Your task to perform on an android device: open chrome privacy settings Image 0: 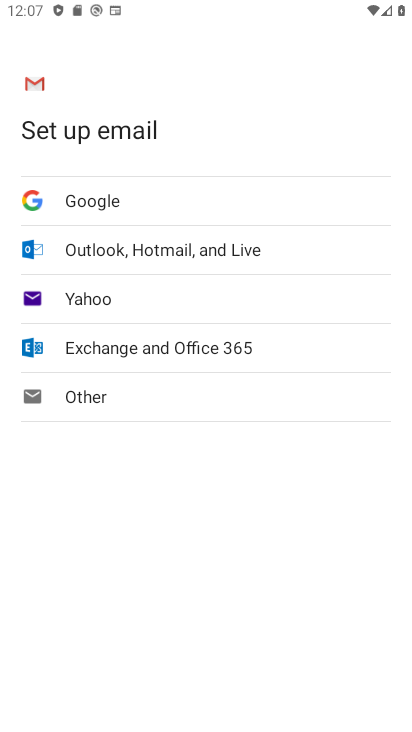
Step 0: press home button
Your task to perform on an android device: open chrome privacy settings Image 1: 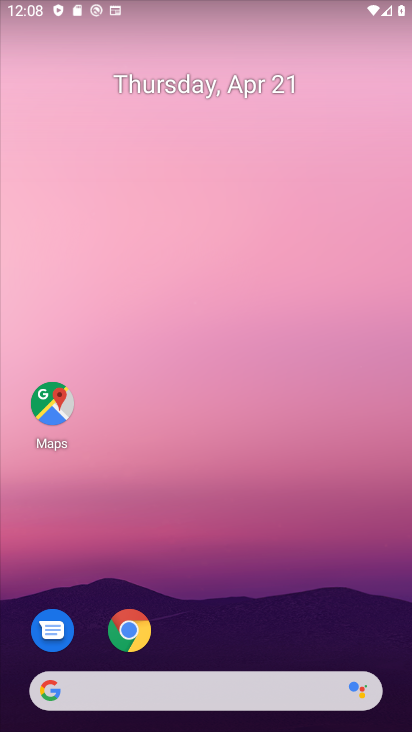
Step 1: click (123, 624)
Your task to perform on an android device: open chrome privacy settings Image 2: 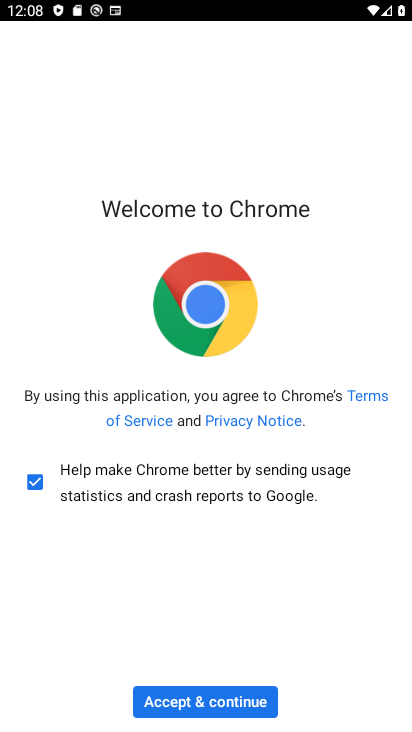
Step 2: click (183, 702)
Your task to perform on an android device: open chrome privacy settings Image 3: 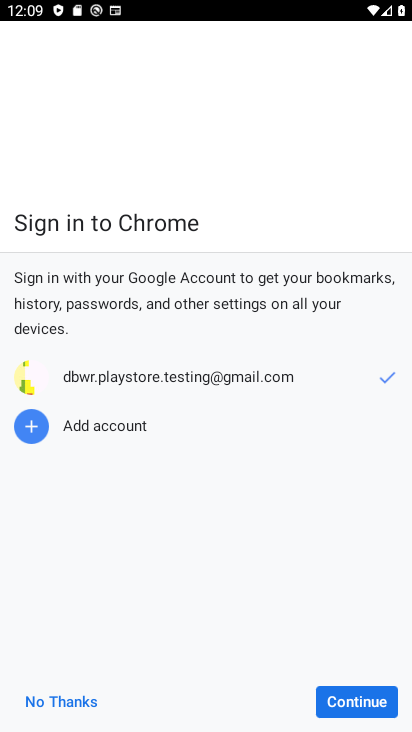
Step 3: click (363, 705)
Your task to perform on an android device: open chrome privacy settings Image 4: 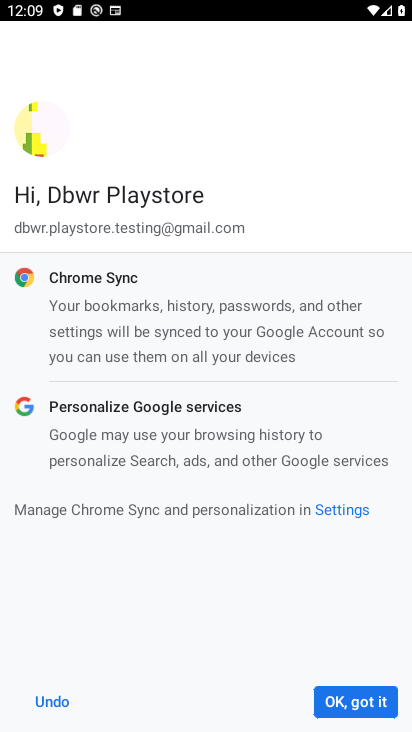
Step 4: click (363, 705)
Your task to perform on an android device: open chrome privacy settings Image 5: 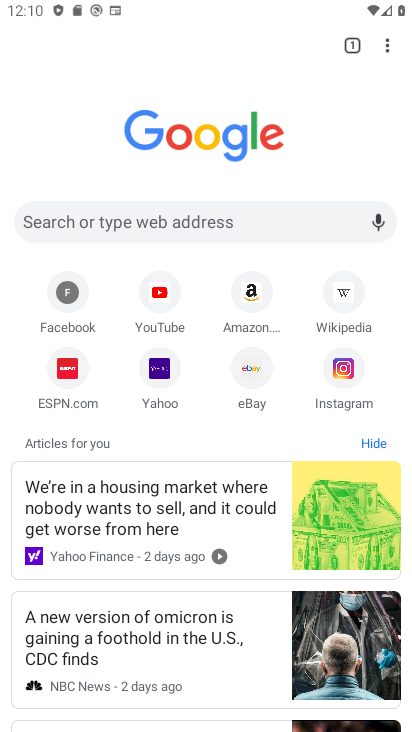
Step 5: click (391, 40)
Your task to perform on an android device: open chrome privacy settings Image 6: 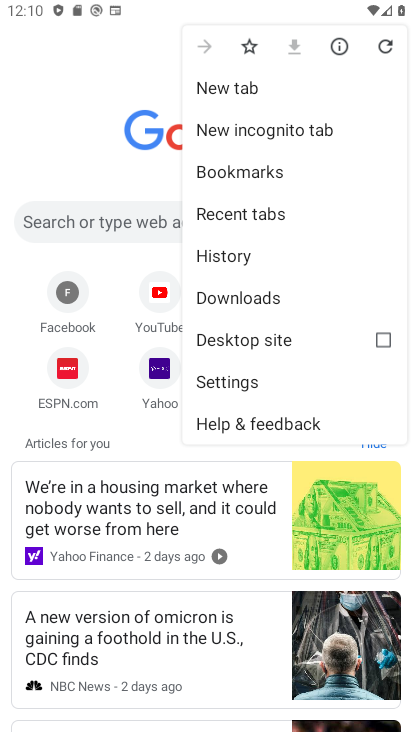
Step 6: click (264, 379)
Your task to perform on an android device: open chrome privacy settings Image 7: 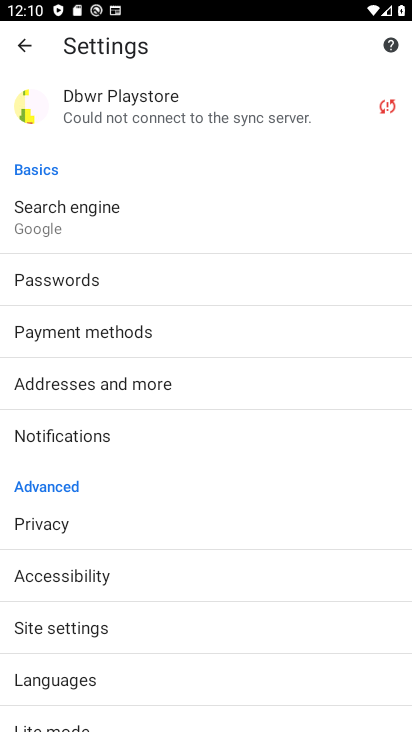
Step 7: click (110, 532)
Your task to perform on an android device: open chrome privacy settings Image 8: 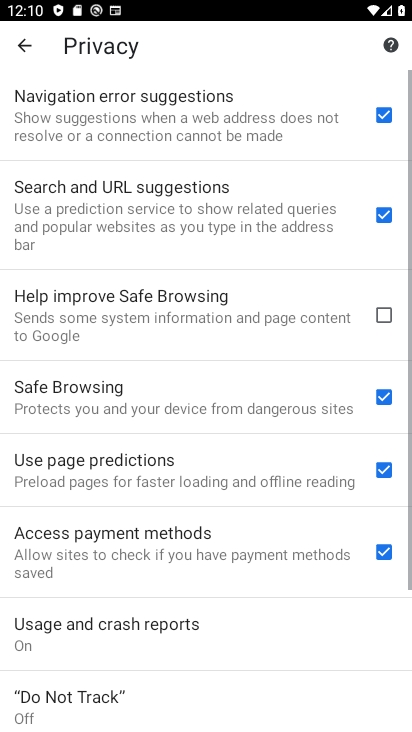
Step 8: task complete